Your task to perform on an android device: Go to ESPN.com Image 0: 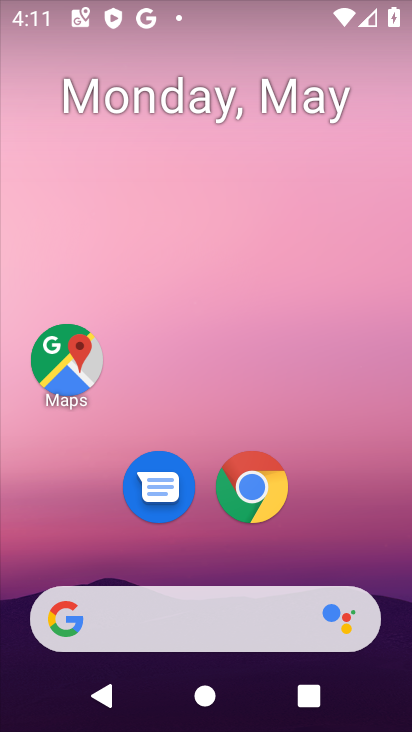
Step 0: click (254, 488)
Your task to perform on an android device: Go to ESPN.com Image 1: 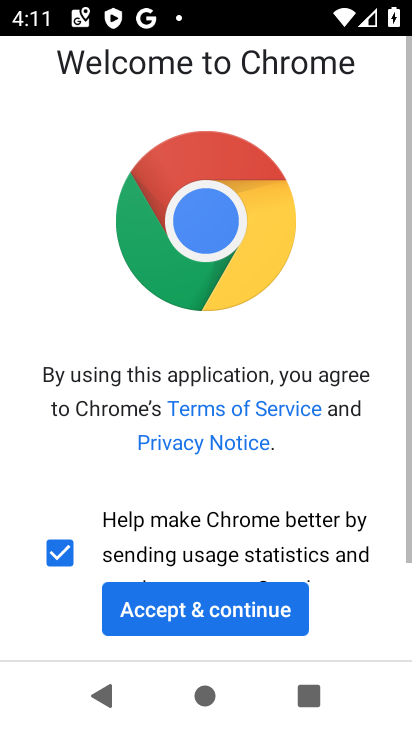
Step 1: click (168, 599)
Your task to perform on an android device: Go to ESPN.com Image 2: 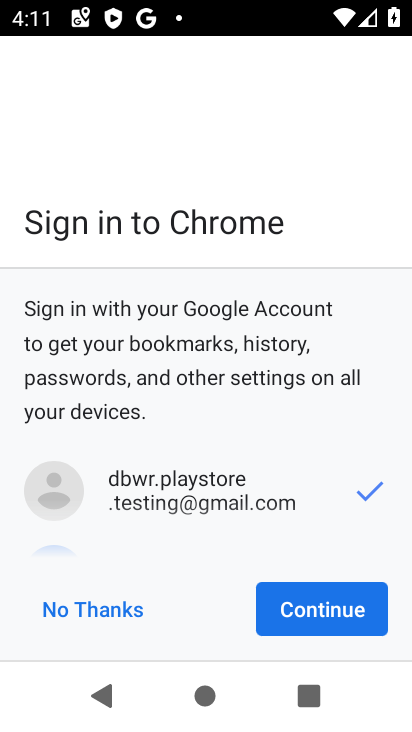
Step 2: click (129, 597)
Your task to perform on an android device: Go to ESPN.com Image 3: 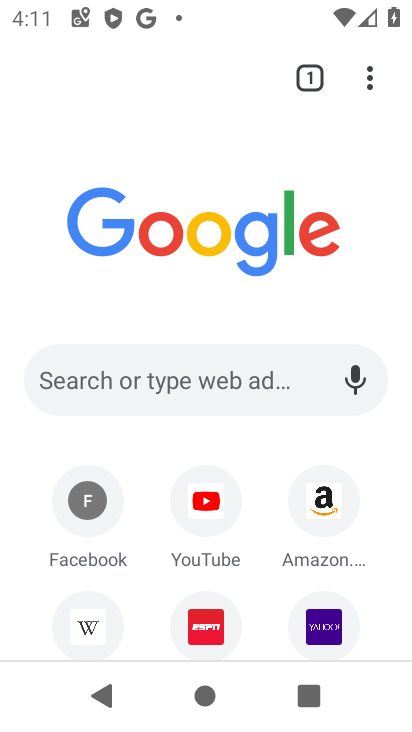
Step 3: click (212, 638)
Your task to perform on an android device: Go to ESPN.com Image 4: 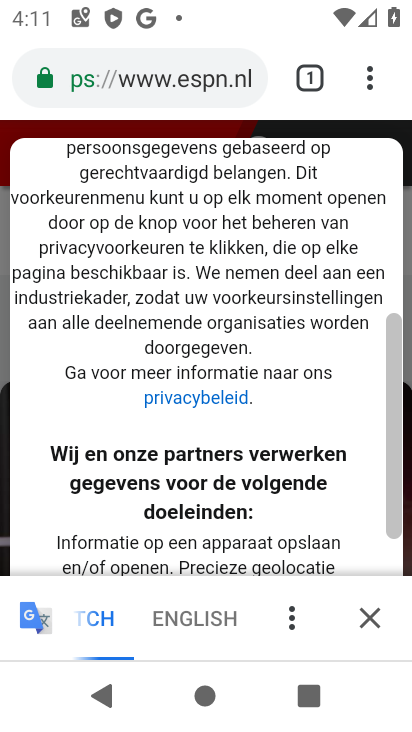
Step 4: task complete